Your task to perform on an android device: Go to location settings Image 0: 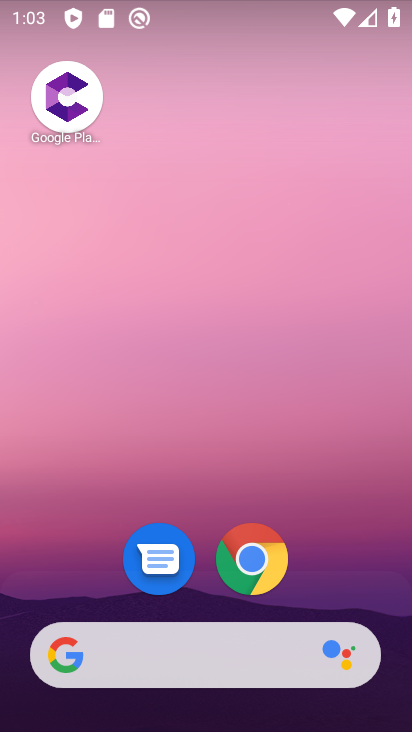
Step 0: drag from (137, 725) to (191, 23)
Your task to perform on an android device: Go to location settings Image 1: 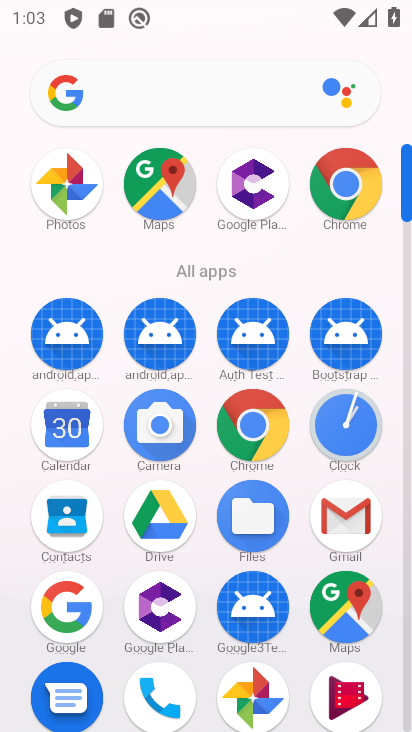
Step 1: drag from (108, 568) to (88, 216)
Your task to perform on an android device: Go to location settings Image 2: 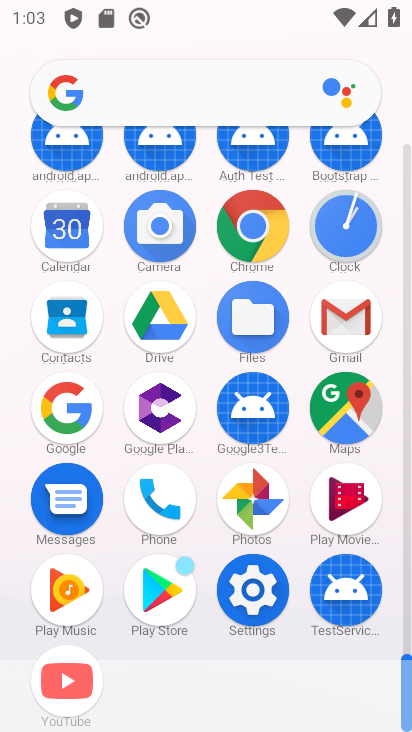
Step 2: click (263, 596)
Your task to perform on an android device: Go to location settings Image 3: 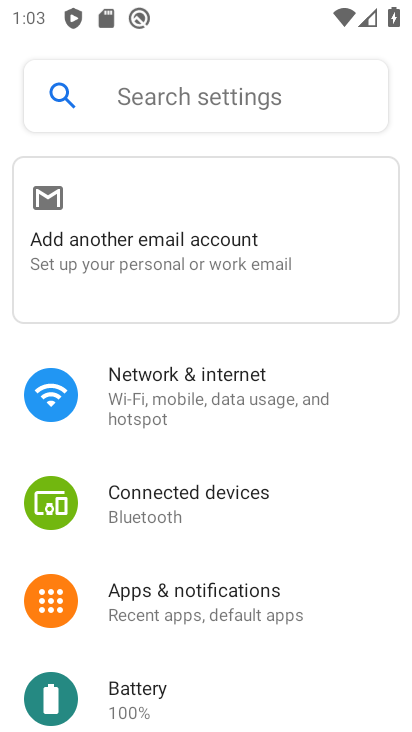
Step 3: drag from (228, 637) to (306, 114)
Your task to perform on an android device: Go to location settings Image 4: 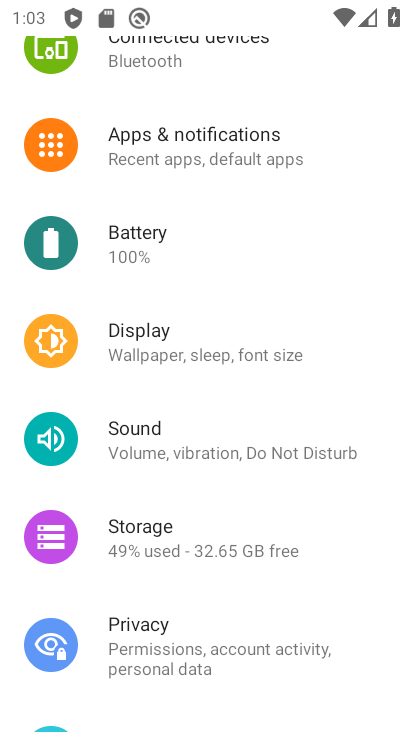
Step 4: drag from (240, 667) to (205, 325)
Your task to perform on an android device: Go to location settings Image 5: 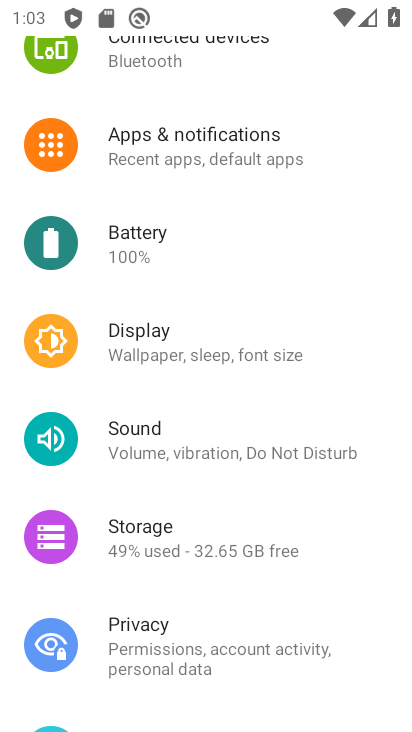
Step 5: drag from (236, 675) to (269, 230)
Your task to perform on an android device: Go to location settings Image 6: 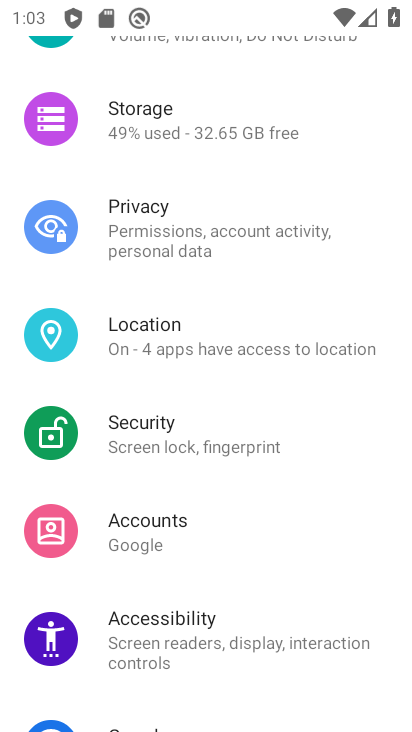
Step 6: click (207, 345)
Your task to perform on an android device: Go to location settings Image 7: 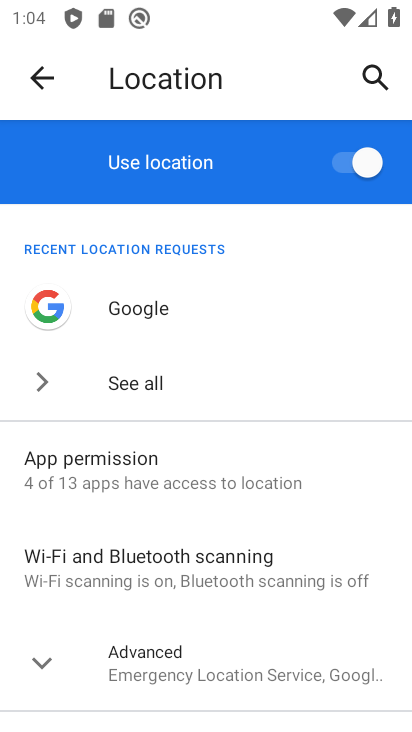
Step 7: task complete